Your task to perform on an android device: turn on improve location accuracy Image 0: 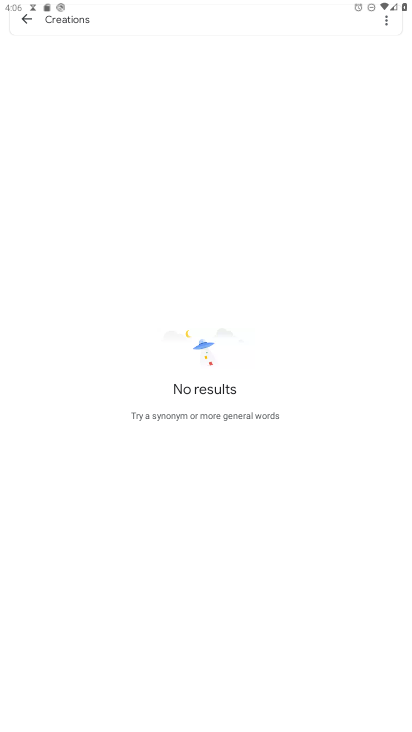
Step 0: press home button
Your task to perform on an android device: turn on improve location accuracy Image 1: 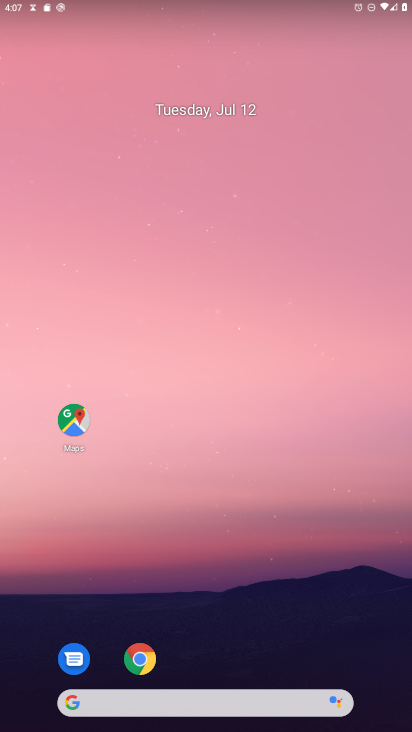
Step 1: drag from (189, 639) to (178, 214)
Your task to perform on an android device: turn on improve location accuracy Image 2: 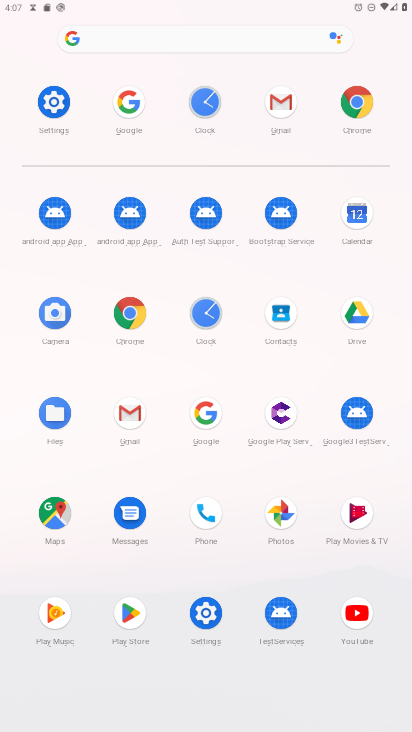
Step 2: click (46, 114)
Your task to perform on an android device: turn on improve location accuracy Image 3: 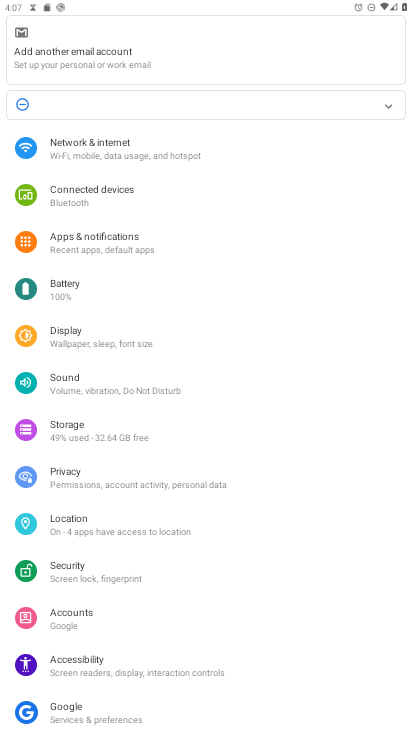
Step 3: click (83, 530)
Your task to perform on an android device: turn on improve location accuracy Image 4: 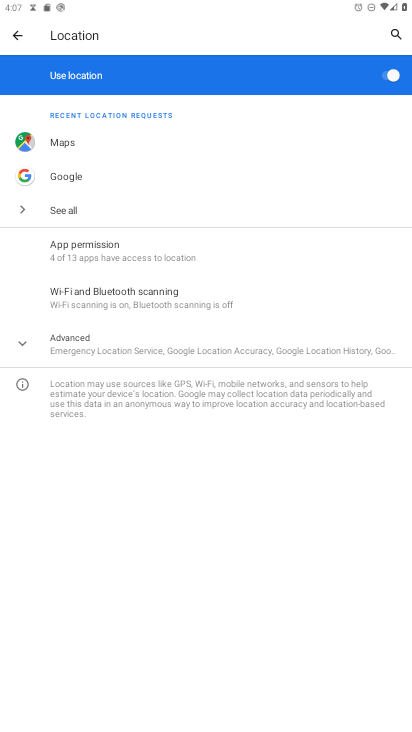
Step 4: click (50, 348)
Your task to perform on an android device: turn on improve location accuracy Image 5: 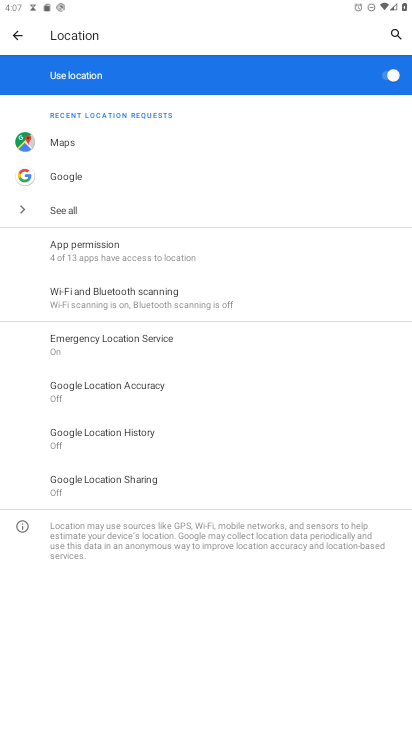
Step 5: click (97, 392)
Your task to perform on an android device: turn on improve location accuracy Image 6: 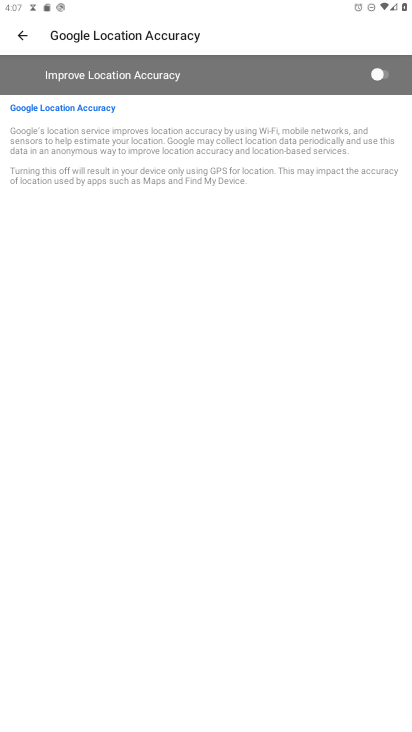
Step 6: click (391, 75)
Your task to perform on an android device: turn on improve location accuracy Image 7: 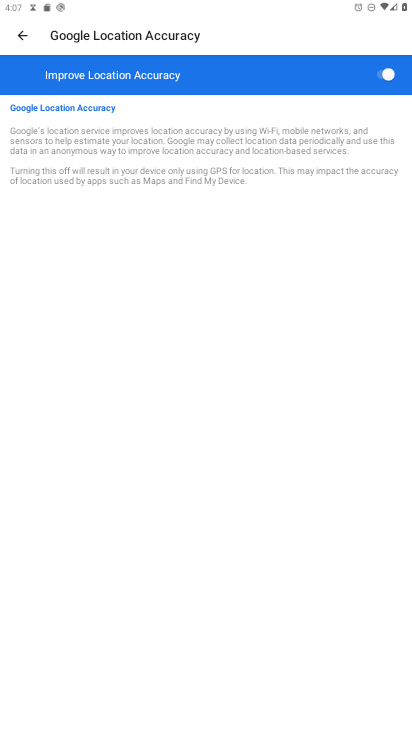
Step 7: task complete